Your task to perform on an android device: Look up the best rated headphones on Aliexpress Image 0: 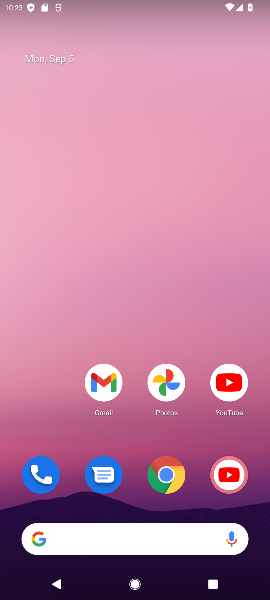
Step 0: click (240, 371)
Your task to perform on an android device: Look up the best rated headphones on Aliexpress Image 1: 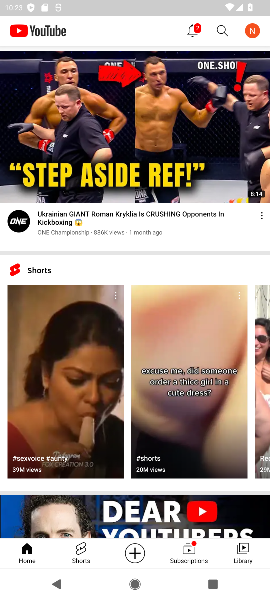
Step 1: task complete